Your task to perform on an android device: add a label to a message in the gmail app Image 0: 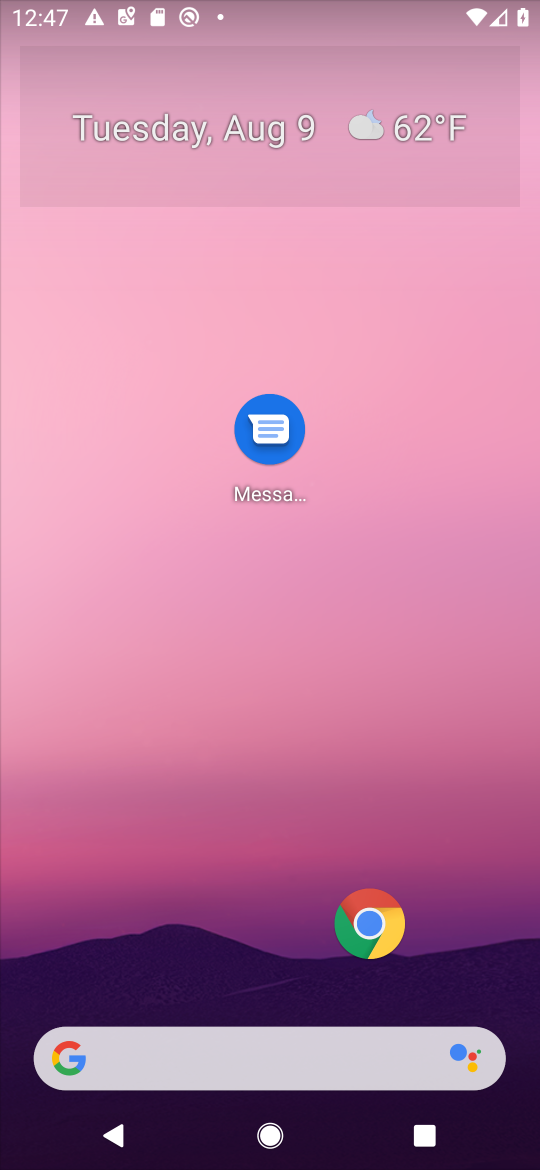
Step 0: drag from (57, 1118) to (330, 311)
Your task to perform on an android device: add a label to a message in the gmail app Image 1: 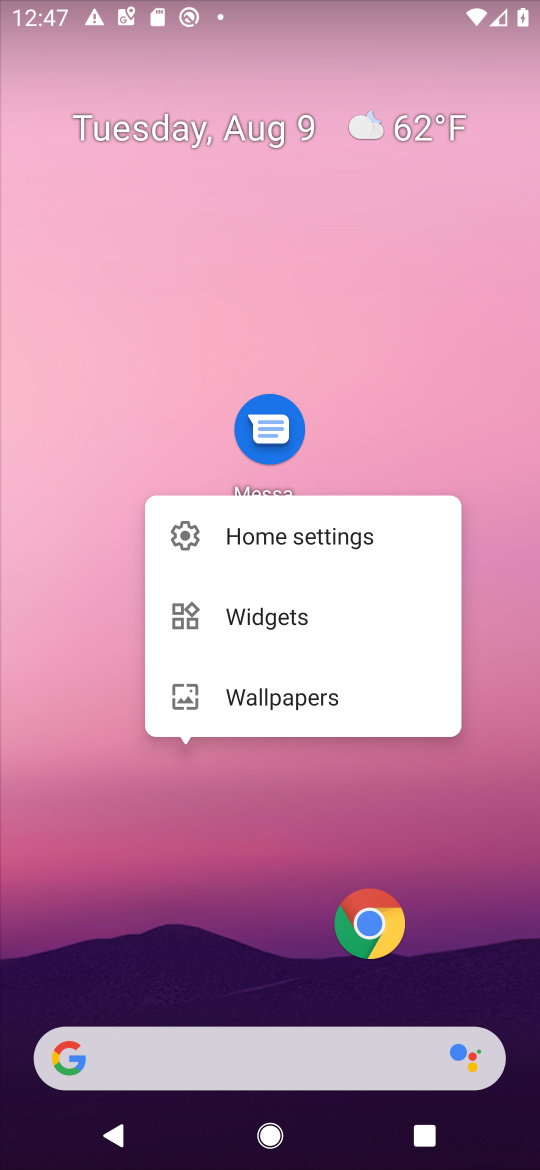
Step 1: task complete